Your task to perform on an android device: Go to internet settings Image 0: 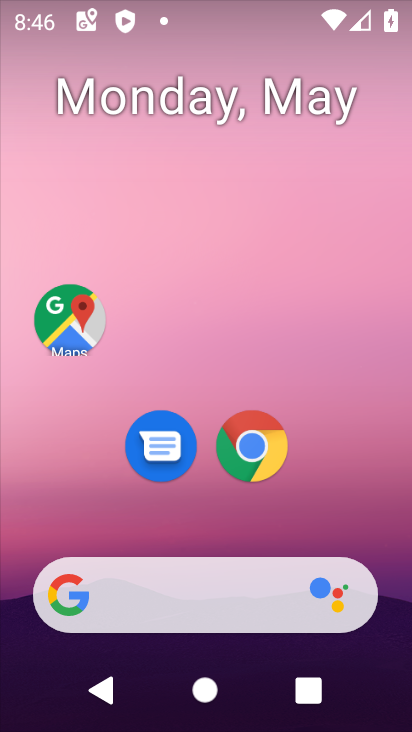
Step 0: drag from (203, 530) to (258, 87)
Your task to perform on an android device: Go to internet settings Image 1: 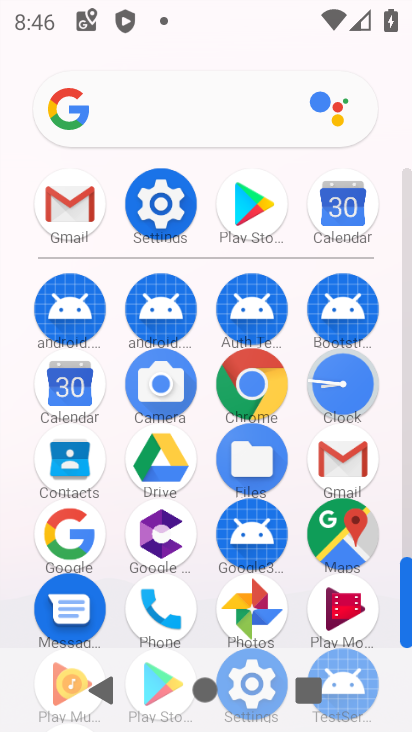
Step 1: click (158, 196)
Your task to perform on an android device: Go to internet settings Image 2: 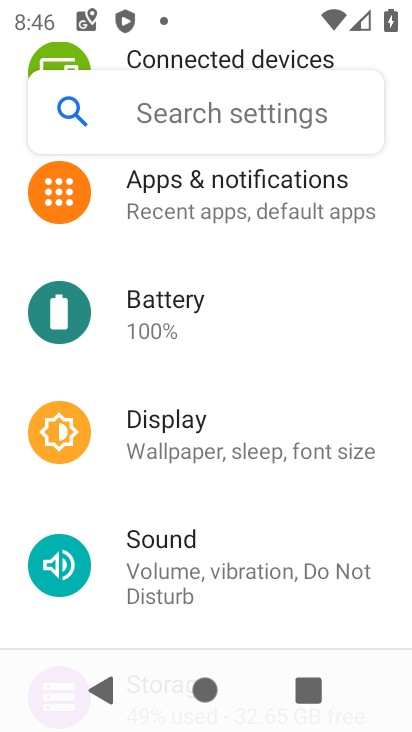
Step 2: drag from (190, 200) to (255, 611)
Your task to perform on an android device: Go to internet settings Image 3: 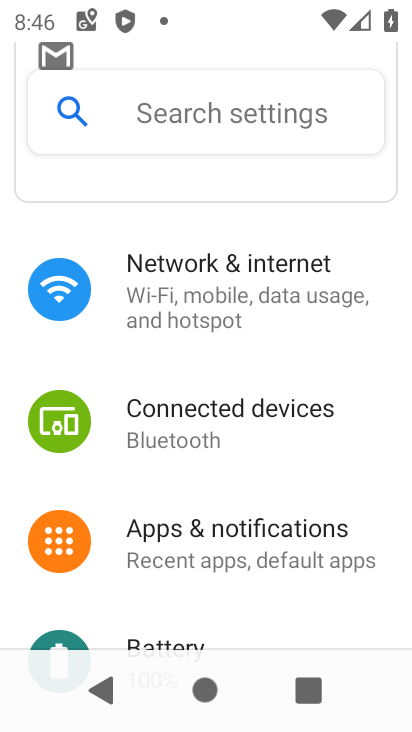
Step 3: click (218, 313)
Your task to perform on an android device: Go to internet settings Image 4: 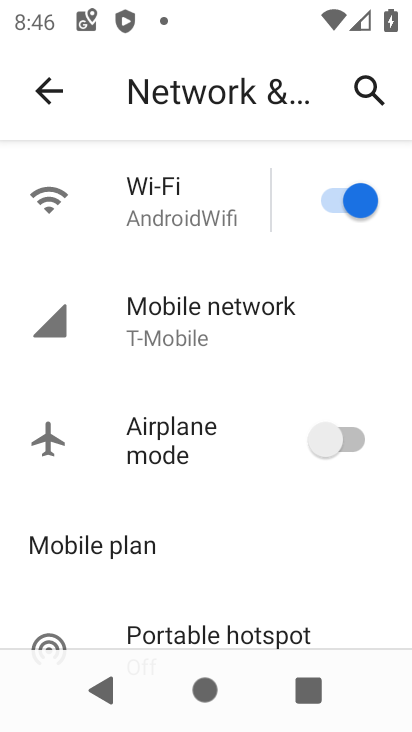
Step 4: drag from (190, 594) to (224, 177)
Your task to perform on an android device: Go to internet settings Image 5: 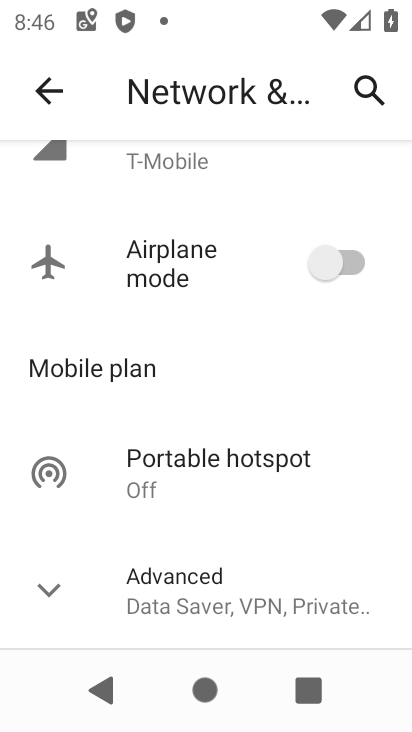
Step 5: click (54, 582)
Your task to perform on an android device: Go to internet settings Image 6: 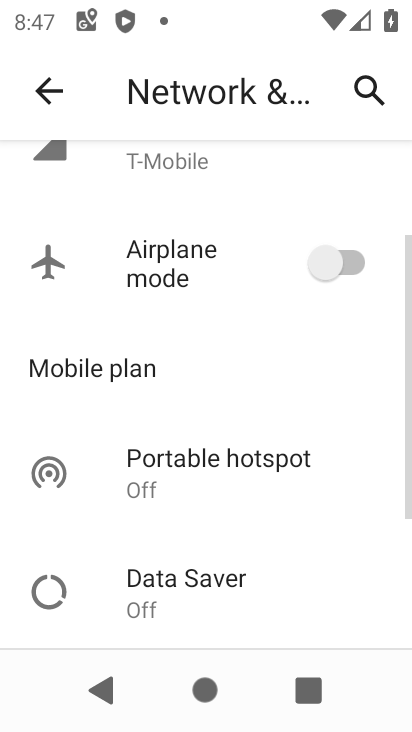
Step 6: task complete